Your task to perform on an android device: open a bookmark in the chrome app Image 0: 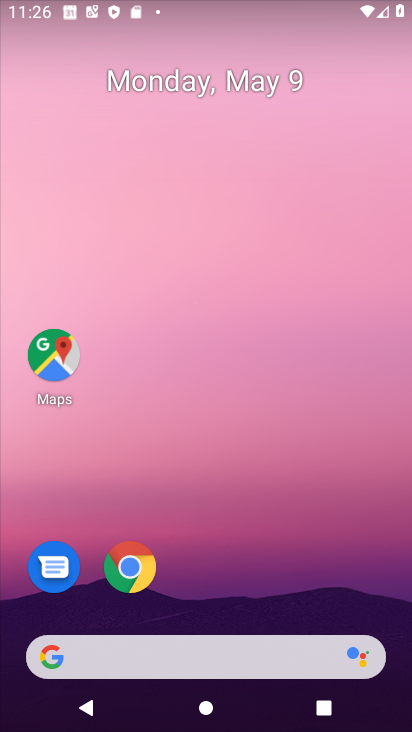
Step 0: click (132, 586)
Your task to perform on an android device: open a bookmark in the chrome app Image 1: 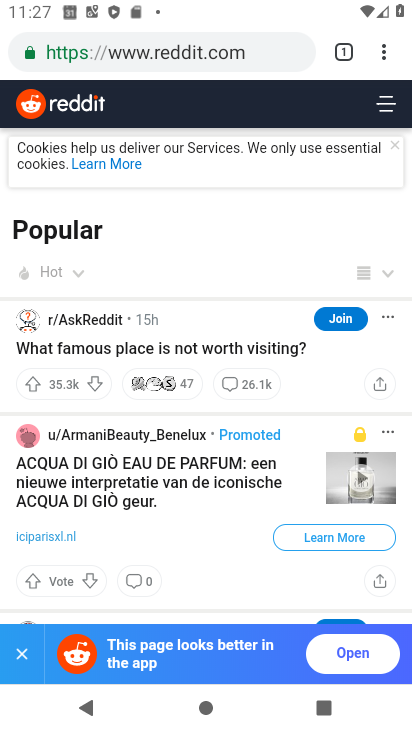
Step 1: drag from (383, 67) to (230, 205)
Your task to perform on an android device: open a bookmark in the chrome app Image 2: 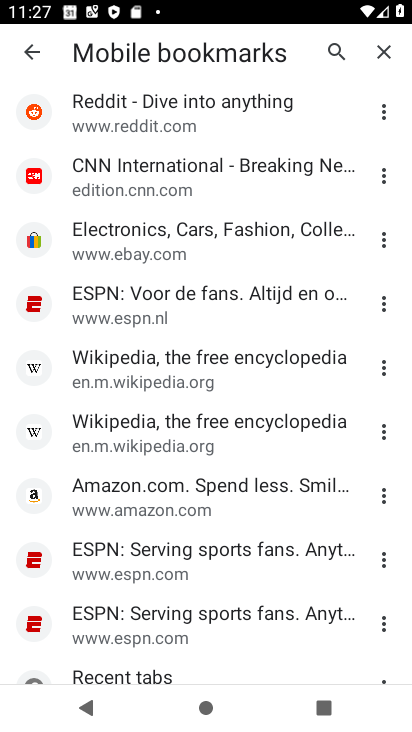
Step 2: click (160, 235)
Your task to perform on an android device: open a bookmark in the chrome app Image 3: 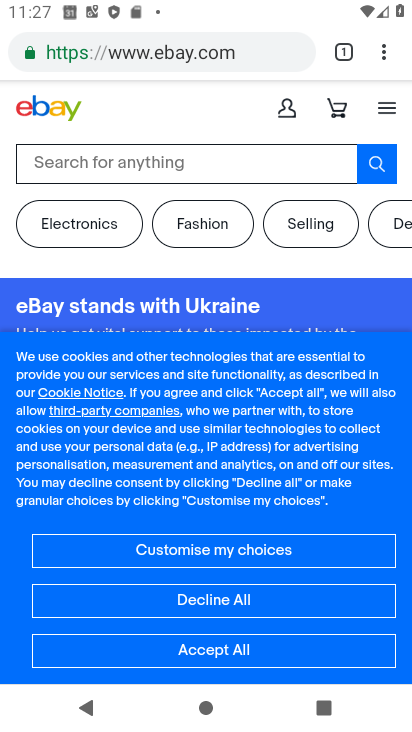
Step 3: task complete